Your task to perform on an android device: Go to internet settings Image 0: 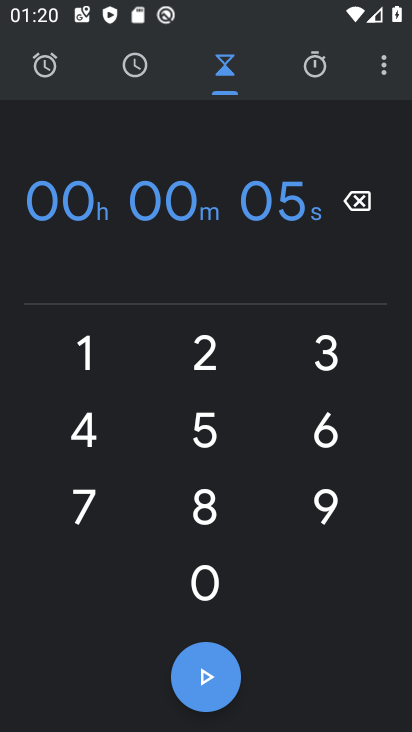
Step 0: press home button
Your task to perform on an android device: Go to internet settings Image 1: 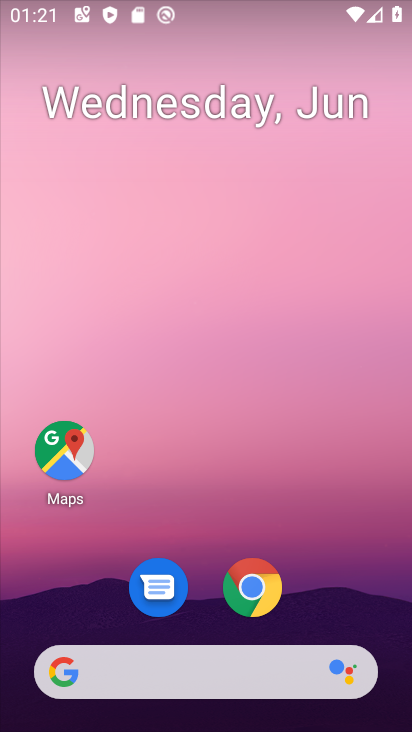
Step 1: drag from (318, 325) to (330, 105)
Your task to perform on an android device: Go to internet settings Image 2: 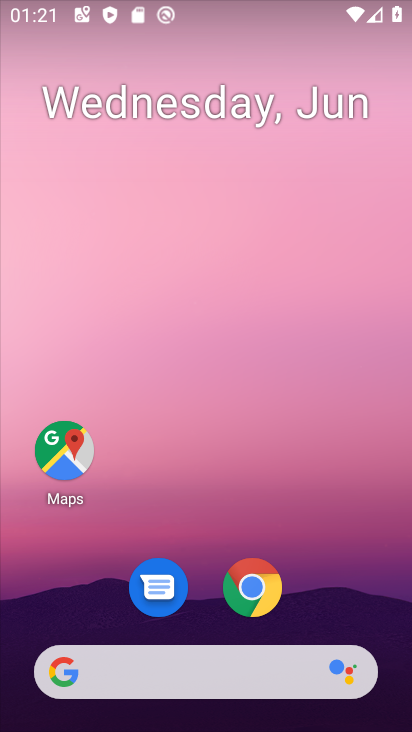
Step 2: drag from (316, 515) to (312, 131)
Your task to perform on an android device: Go to internet settings Image 3: 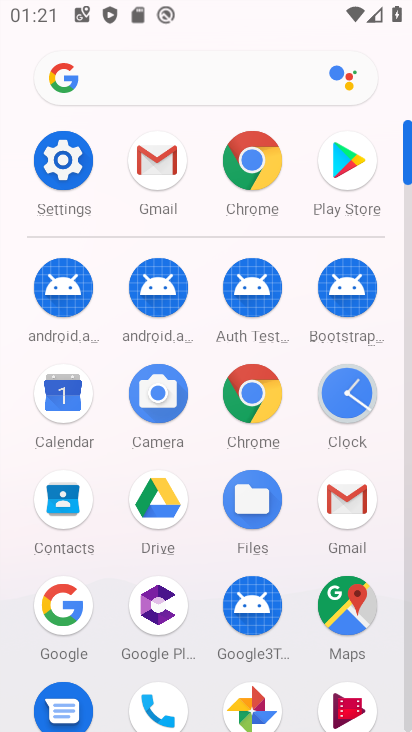
Step 3: click (67, 150)
Your task to perform on an android device: Go to internet settings Image 4: 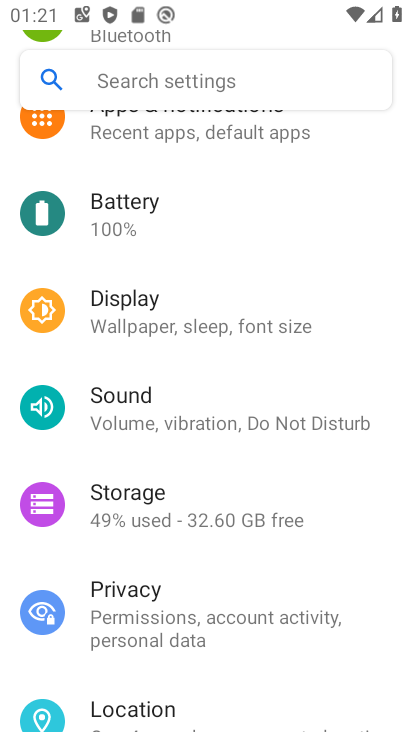
Step 4: drag from (218, 241) to (221, 532)
Your task to perform on an android device: Go to internet settings Image 5: 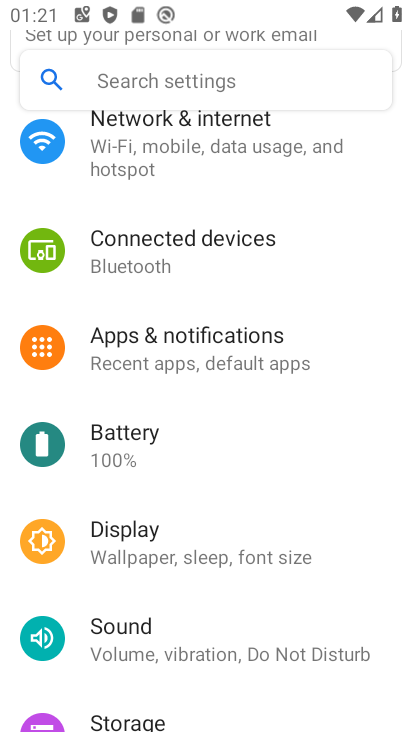
Step 5: click (178, 157)
Your task to perform on an android device: Go to internet settings Image 6: 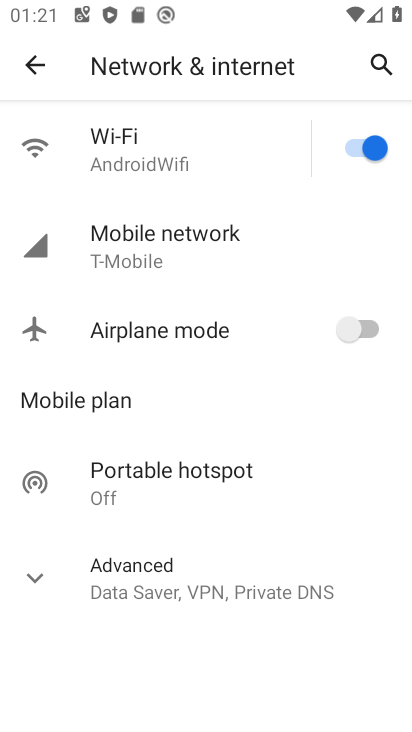
Step 6: click (185, 567)
Your task to perform on an android device: Go to internet settings Image 7: 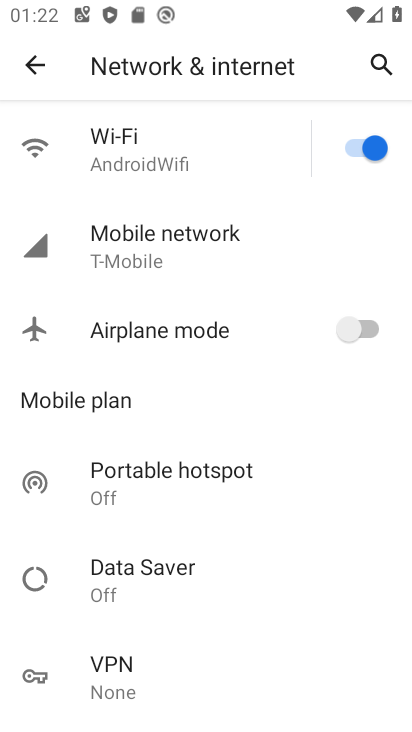
Step 7: task complete